Your task to perform on an android device: turn pop-ups on in chrome Image 0: 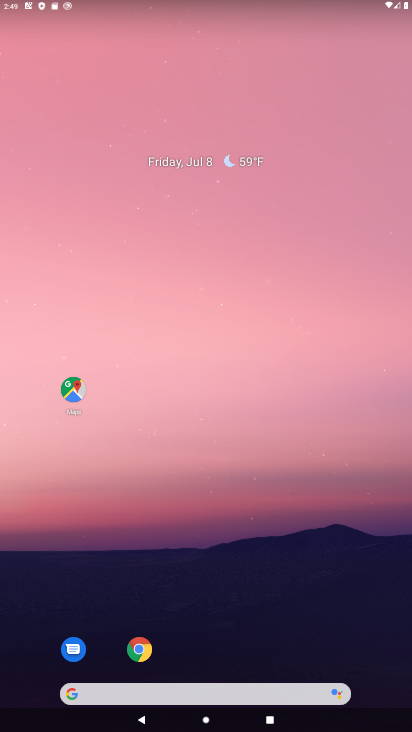
Step 0: drag from (290, 449) to (285, 208)
Your task to perform on an android device: turn pop-ups on in chrome Image 1: 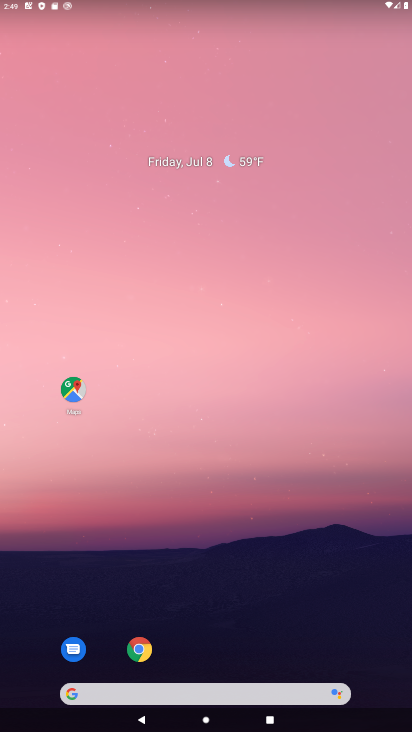
Step 1: drag from (286, 422) to (257, 117)
Your task to perform on an android device: turn pop-ups on in chrome Image 2: 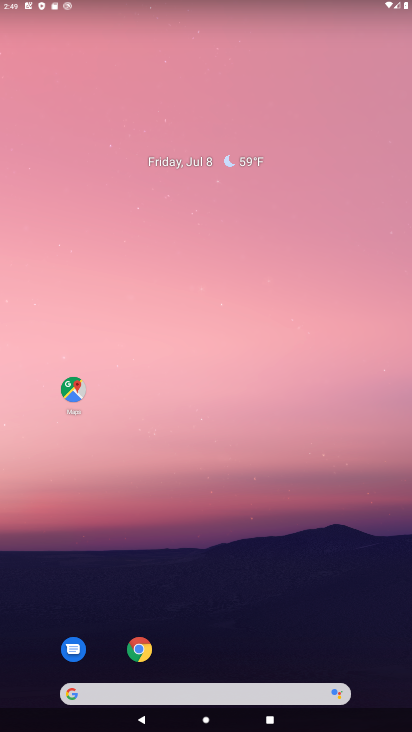
Step 2: drag from (262, 570) to (255, 34)
Your task to perform on an android device: turn pop-ups on in chrome Image 3: 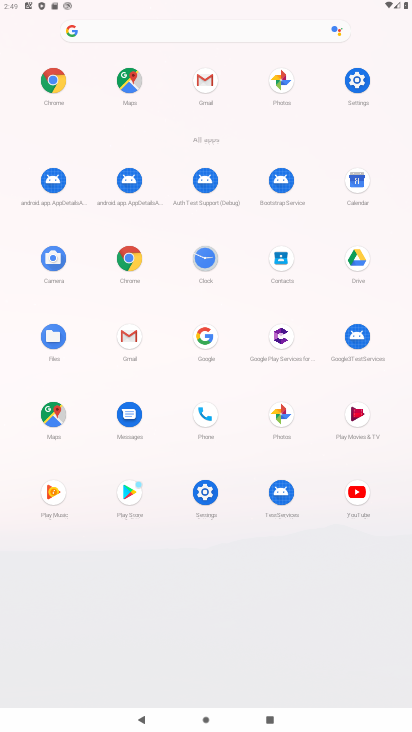
Step 3: click (53, 74)
Your task to perform on an android device: turn pop-ups on in chrome Image 4: 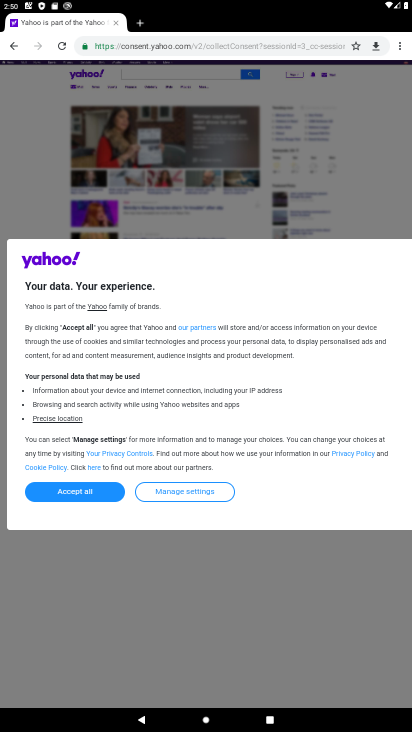
Step 4: drag from (403, 42) to (327, 300)
Your task to perform on an android device: turn pop-ups on in chrome Image 5: 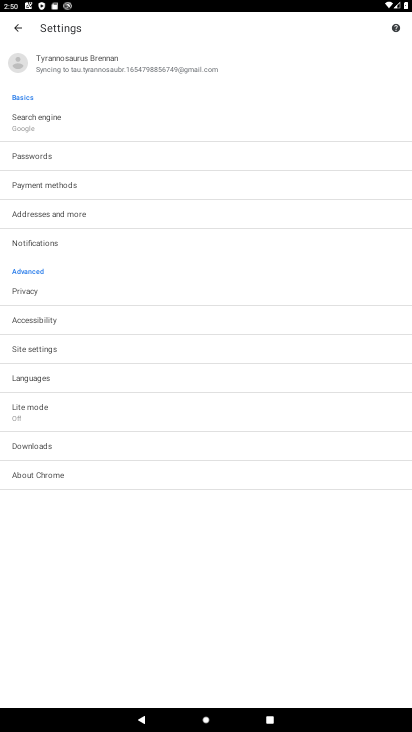
Step 5: click (48, 349)
Your task to perform on an android device: turn pop-ups on in chrome Image 6: 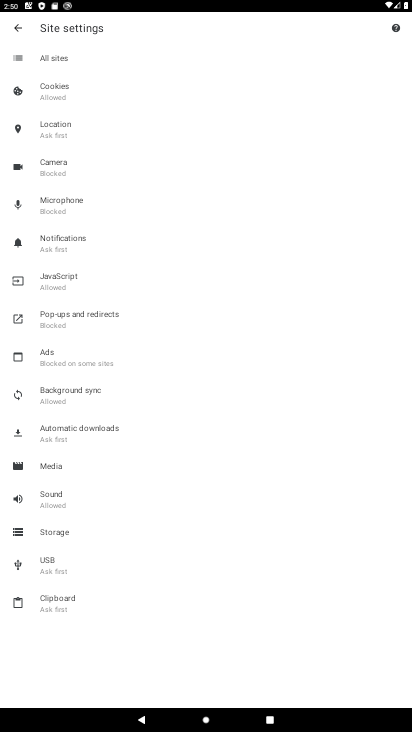
Step 6: click (88, 320)
Your task to perform on an android device: turn pop-ups on in chrome Image 7: 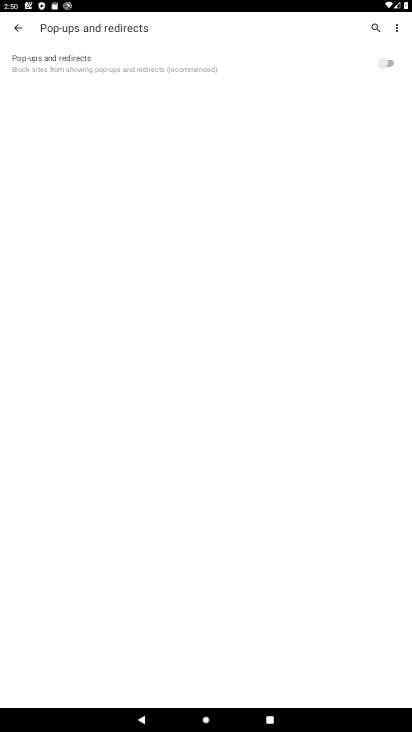
Step 7: click (402, 62)
Your task to perform on an android device: turn pop-ups on in chrome Image 8: 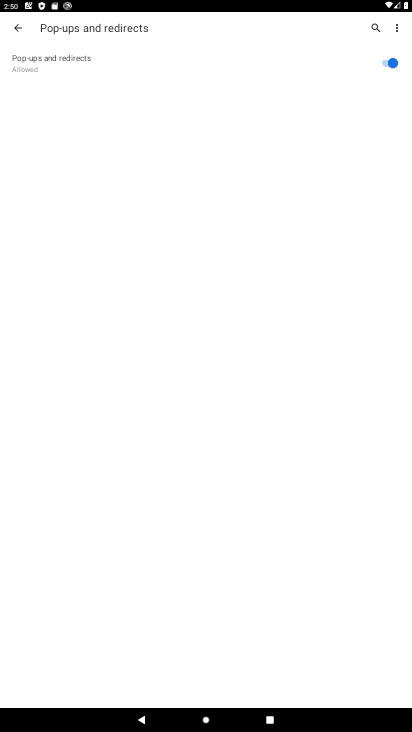
Step 8: task complete